Your task to perform on an android device: What is the news today? Image 0: 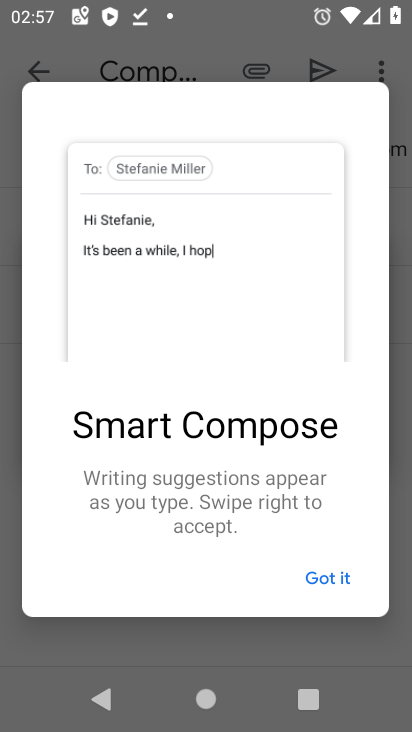
Step 0: click (317, 551)
Your task to perform on an android device: What is the news today? Image 1: 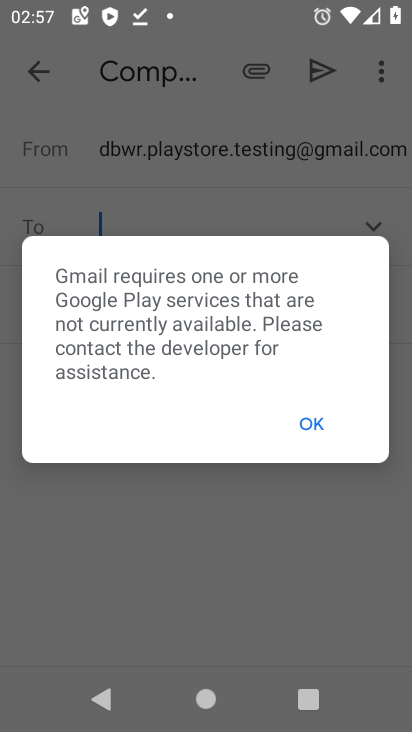
Step 1: press home button
Your task to perform on an android device: What is the news today? Image 2: 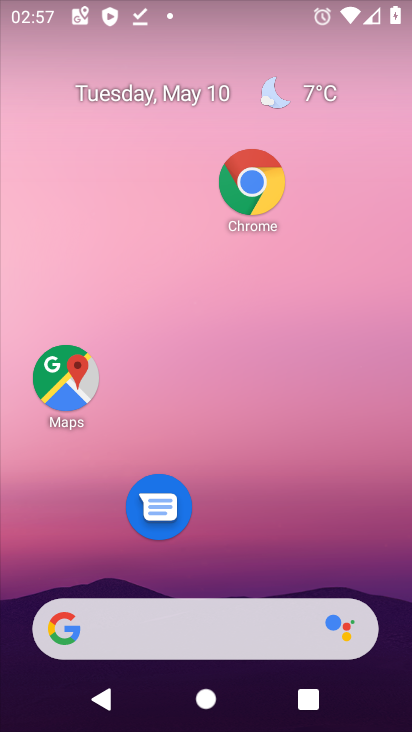
Step 2: drag from (285, 588) to (230, 89)
Your task to perform on an android device: What is the news today? Image 3: 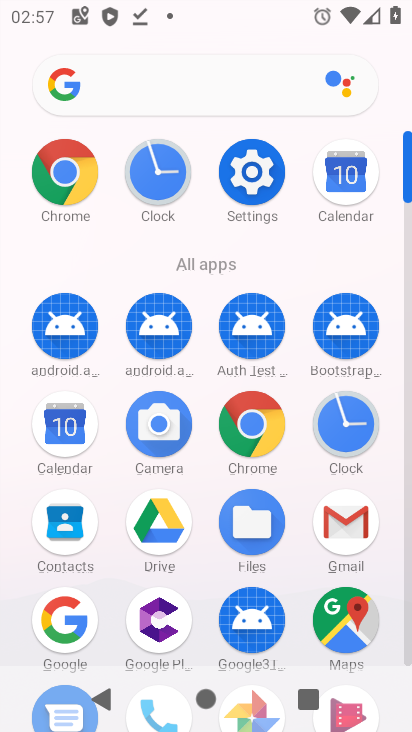
Step 3: click (258, 457)
Your task to perform on an android device: What is the news today? Image 4: 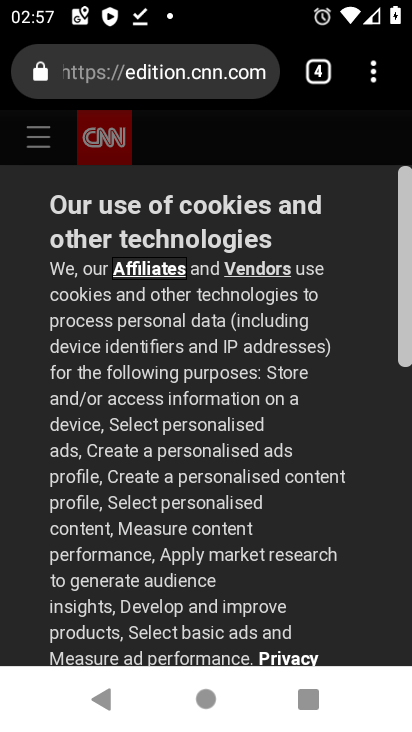
Step 4: click (302, 77)
Your task to perform on an android device: What is the news today? Image 5: 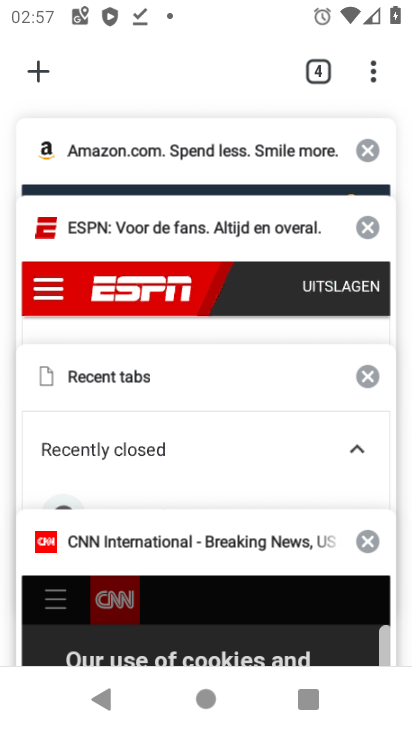
Step 5: click (50, 66)
Your task to perform on an android device: What is the news today? Image 6: 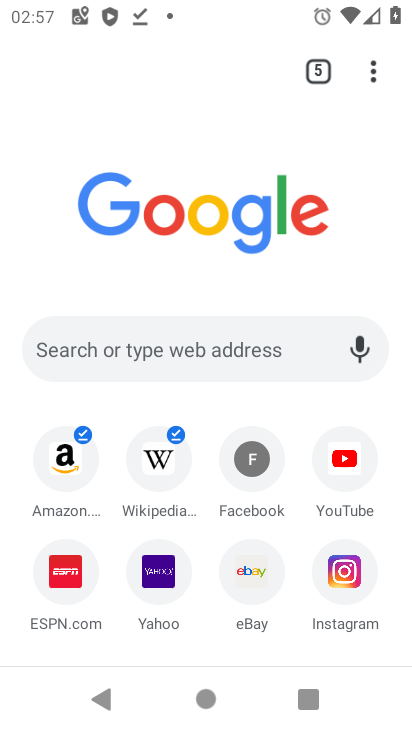
Step 6: drag from (167, 483) to (160, 104)
Your task to perform on an android device: What is the news today? Image 7: 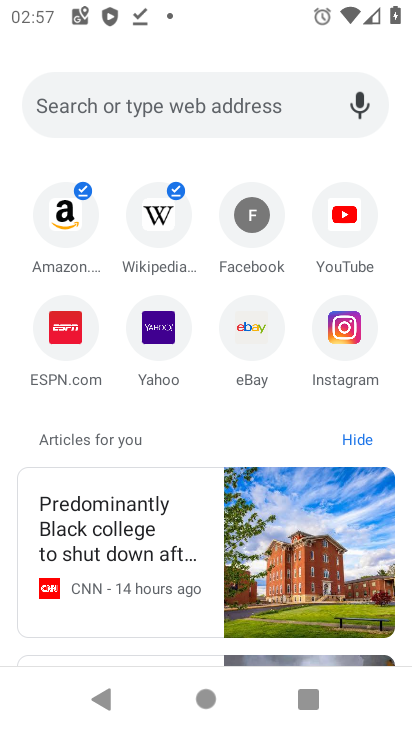
Step 7: drag from (244, 580) to (240, 325)
Your task to perform on an android device: What is the news today? Image 8: 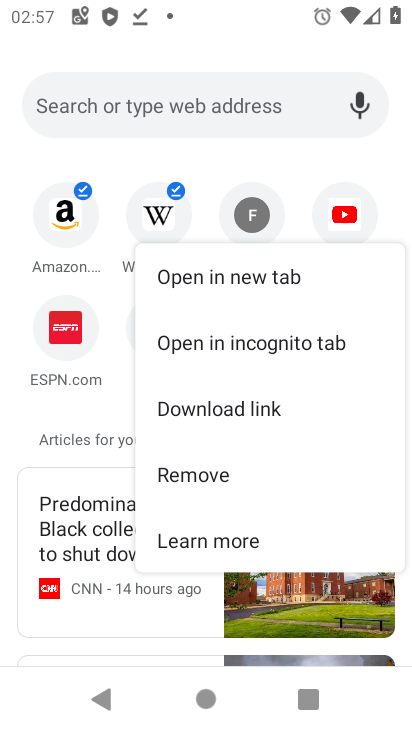
Step 8: click (240, 325)
Your task to perform on an android device: What is the news today? Image 9: 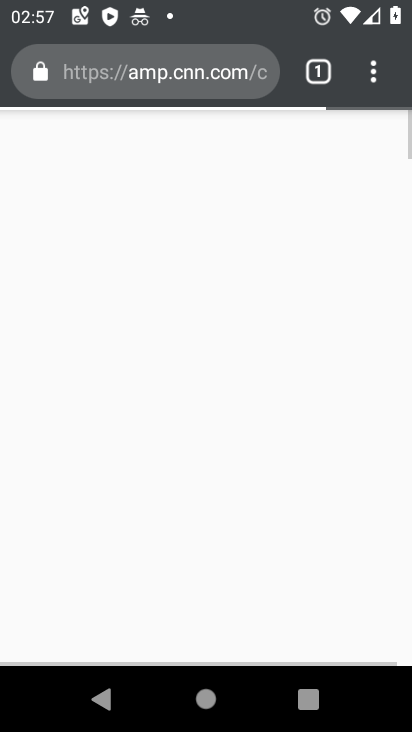
Step 9: task complete